Your task to perform on an android device: Search for pizza restaurants on Maps Image 0: 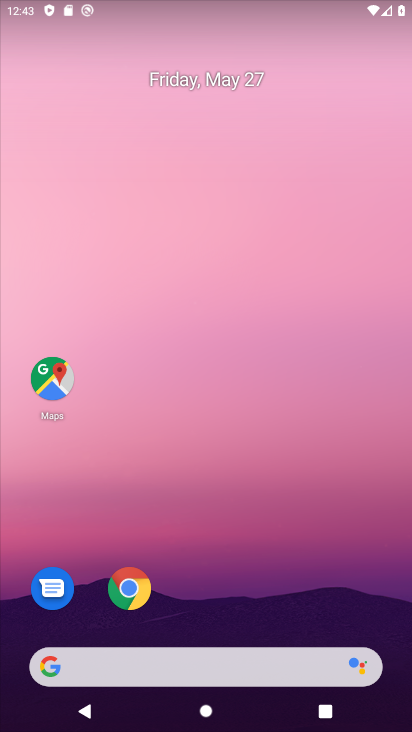
Step 0: click (53, 366)
Your task to perform on an android device: Search for pizza restaurants on Maps Image 1: 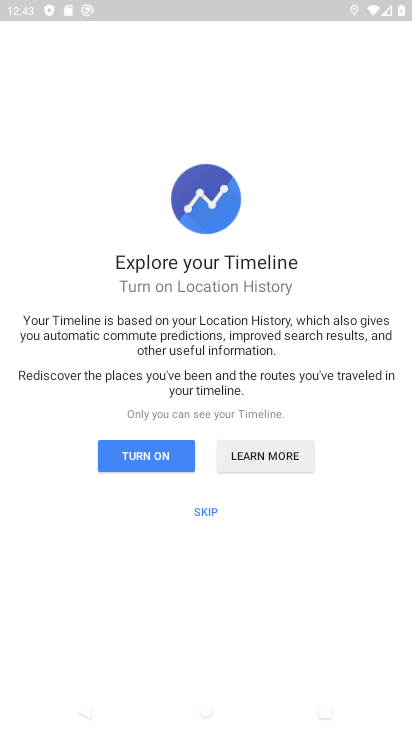
Step 1: click (201, 511)
Your task to perform on an android device: Search for pizza restaurants on Maps Image 2: 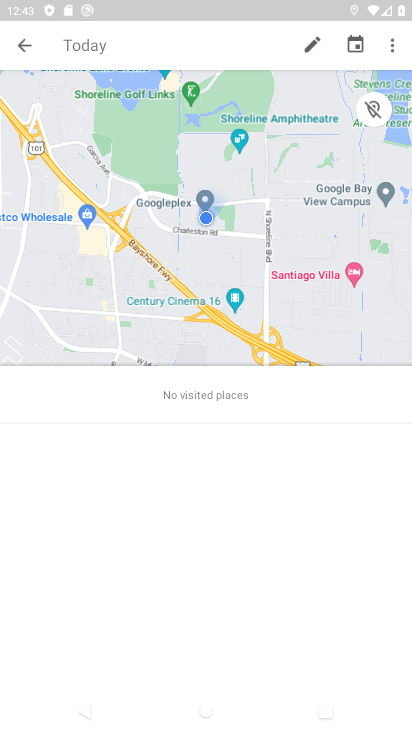
Step 2: click (23, 47)
Your task to perform on an android device: Search for pizza restaurants on Maps Image 3: 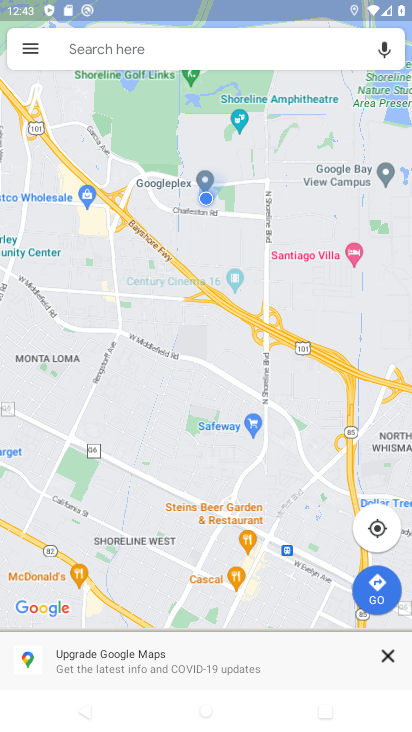
Step 3: click (234, 44)
Your task to perform on an android device: Search for pizza restaurants on Maps Image 4: 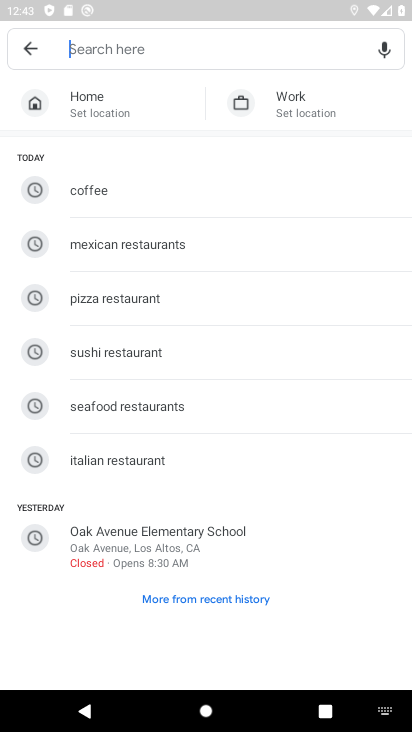
Step 4: click (137, 294)
Your task to perform on an android device: Search for pizza restaurants on Maps Image 5: 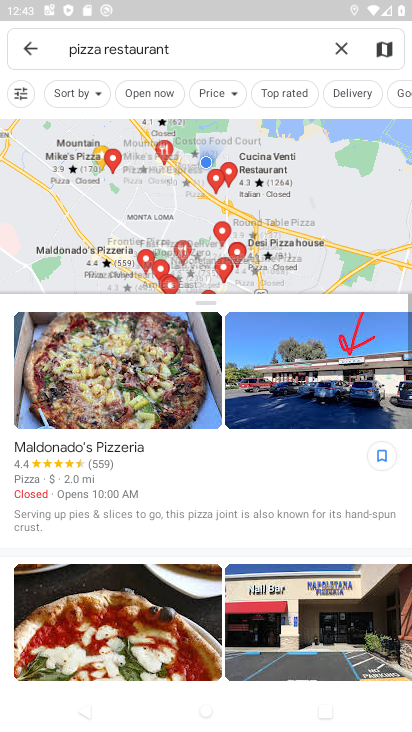
Step 5: task complete